Your task to perform on an android device: toggle location history Image 0: 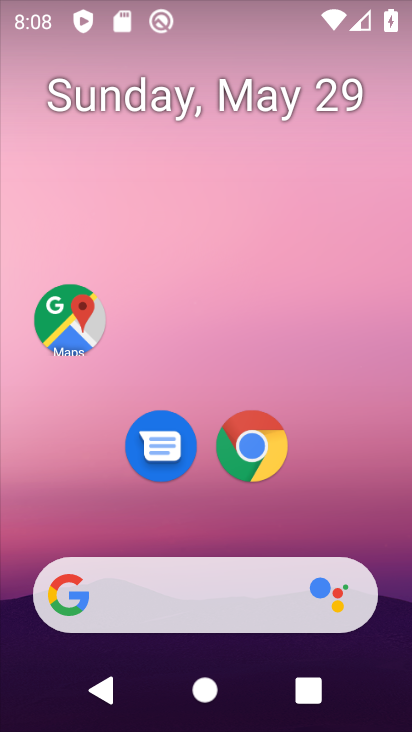
Step 0: click (333, 40)
Your task to perform on an android device: toggle location history Image 1: 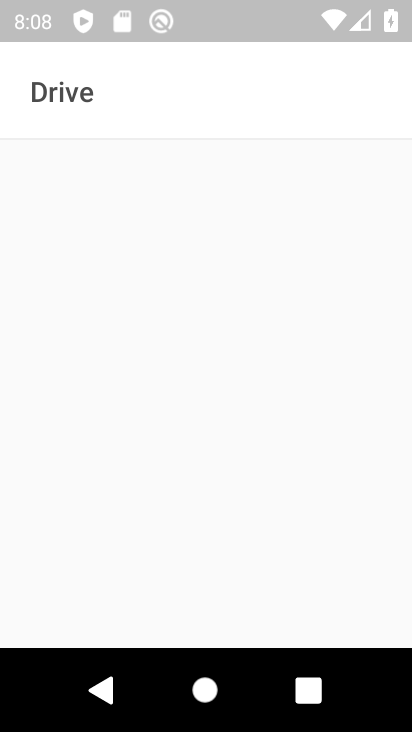
Step 1: press home button
Your task to perform on an android device: toggle location history Image 2: 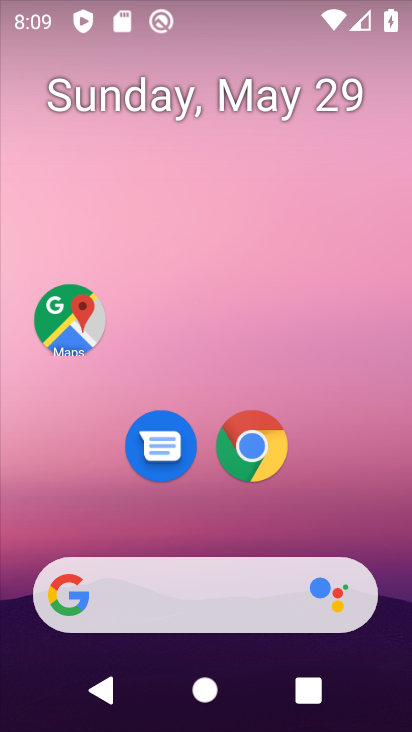
Step 2: drag from (212, 590) to (225, 119)
Your task to perform on an android device: toggle location history Image 3: 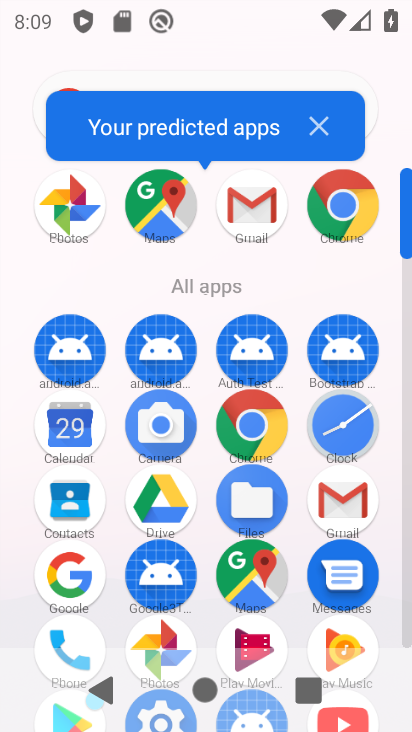
Step 3: drag from (213, 544) to (294, 172)
Your task to perform on an android device: toggle location history Image 4: 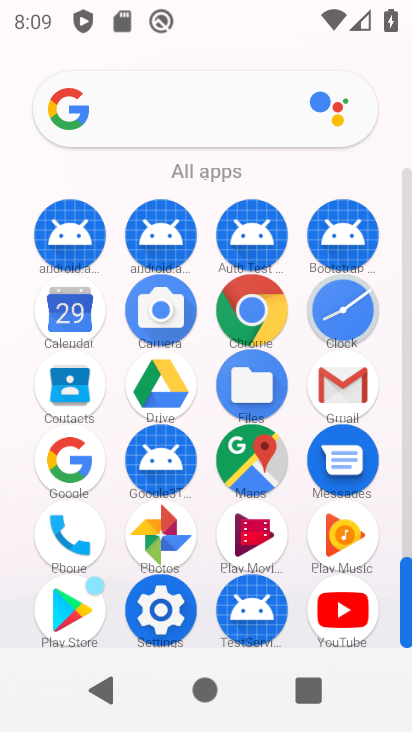
Step 4: click (155, 629)
Your task to perform on an android device: toggle location history Image 5: 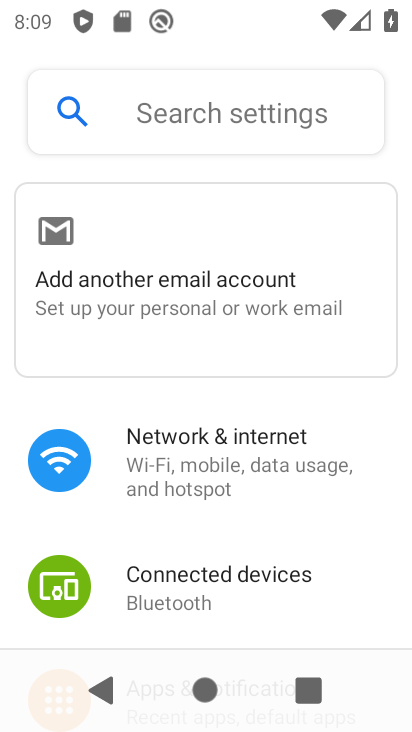
Step 5: drag from (185, 619) to (202, 315)
Your task to perform on an android device: toggle location history Image 6: 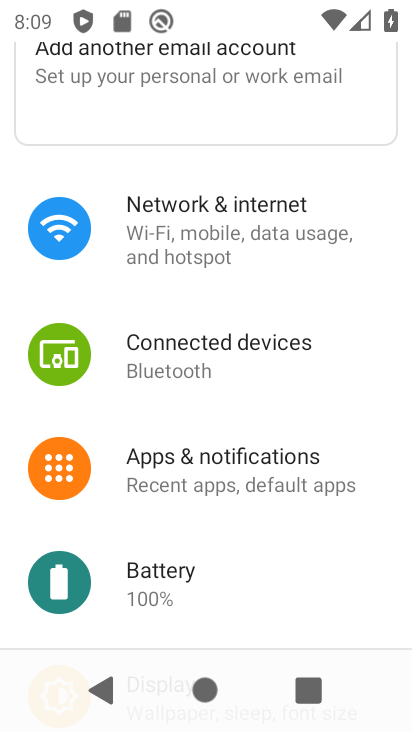
Step 6: drag from (200, 563) to (316, 125)
Your task to perform on an android device: toggle location history Image 7: 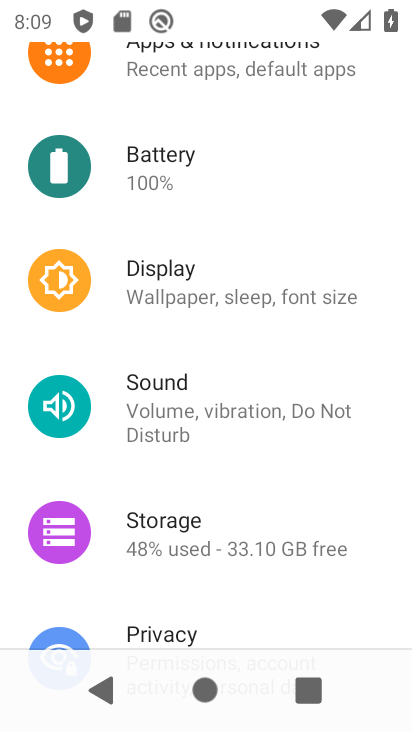
Step 7: drag from (154, 590) to (241, 177)
Your task to perform on an android device: toggle location history Image 8: 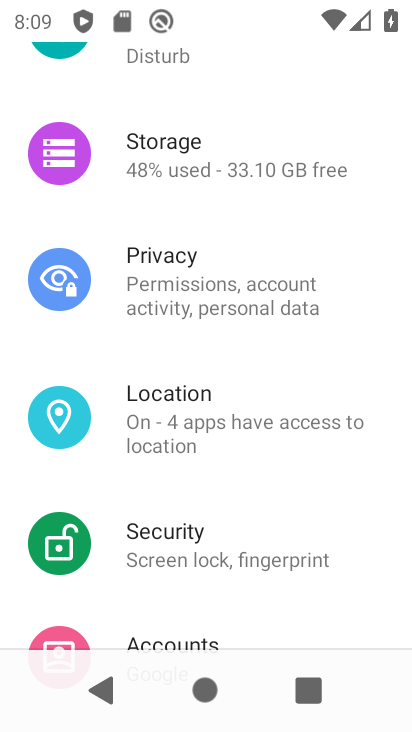
Step 8: click (150, 432)
Your task to perform on an android device: toggle location history Image 9: 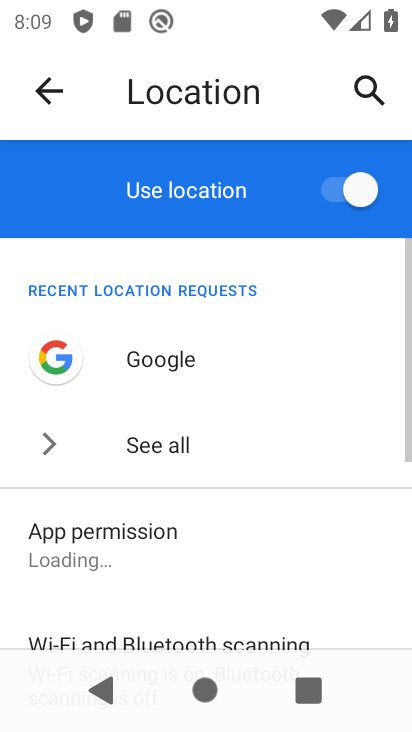
Step 9: drag from (229, 576) to (269, 214)
Your task to perform on an android device: toggle location history Image 10: 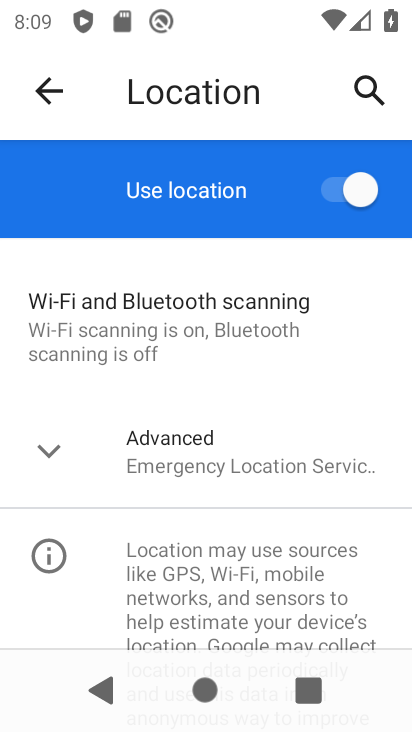
Step 10: click (192, 460)
Your task to perform on an android device: toggle location history Image 11: 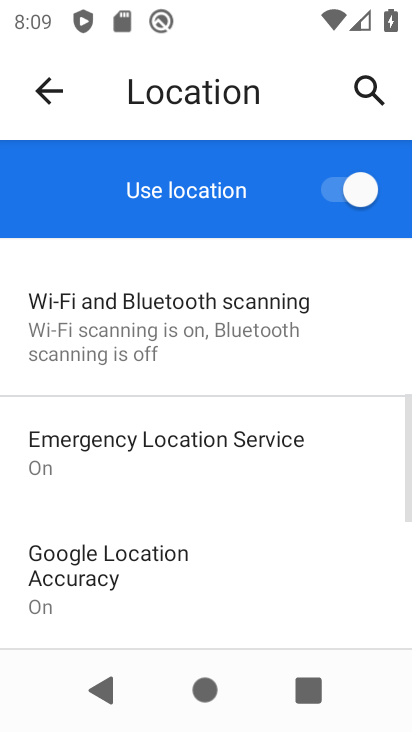
Step 11: drag from (258, 618) to (364, 254)
Your task to perform on an android device: toggle location history Image 12: 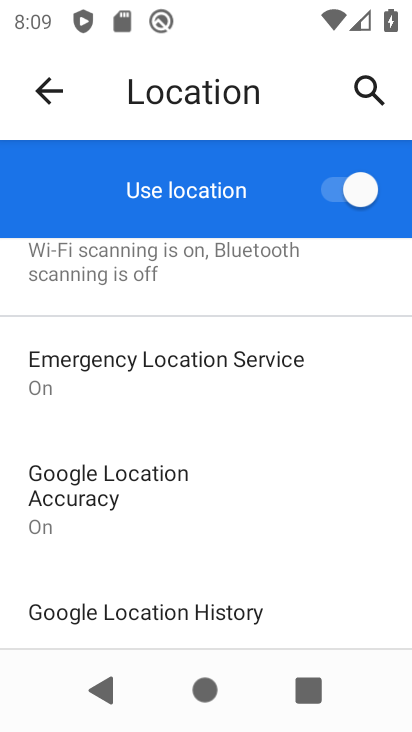
Step 12: click (235, 613)
Your task to perform on an android device: toggle location history Image 13: 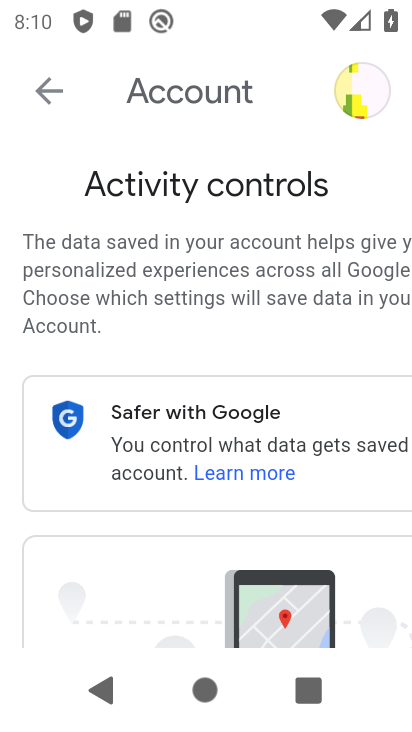
Step 13: drag from (367, 494) to (69, 153)
Your task to perform on an android device: toggle location history Image 14: 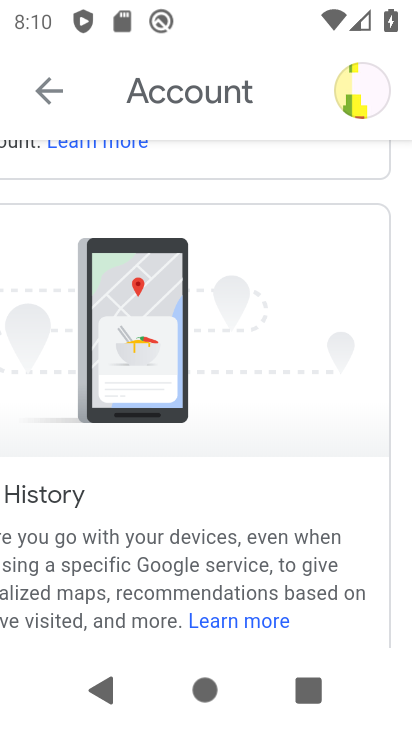
Step 14: drag from (296, 584) to (180, 219)
Your task to perform on an android device: toggle location history Image 15: 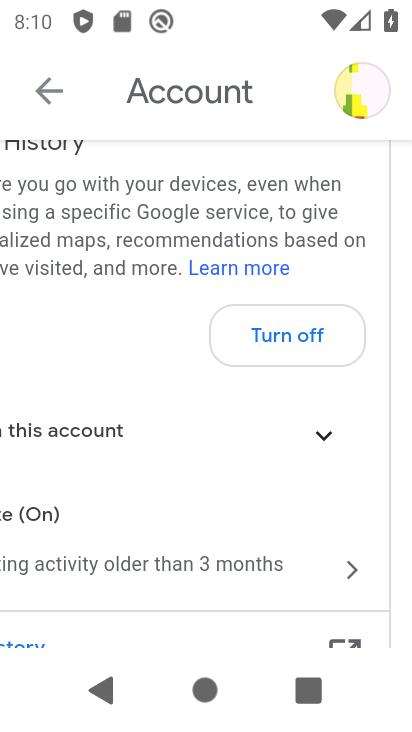
Step 15: click (282, 337)
Your task to perform on an android device: toggle location history Image 16: 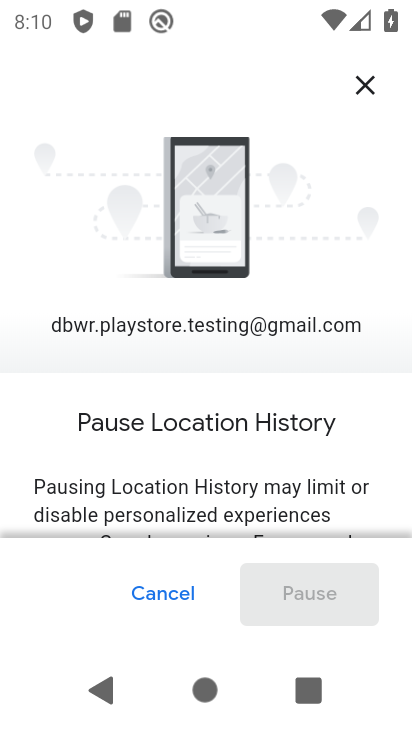
Step 16: drag from (288, 516) to (137, 72)
Your task to perform on an android device: toggle location history Image 17: 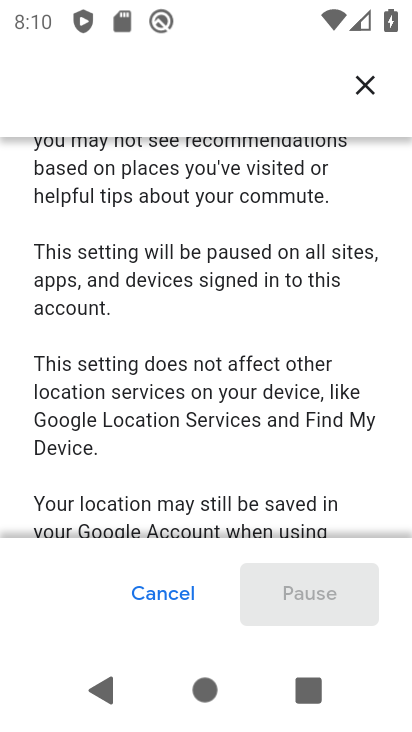
Step 17: drag from (227, 489) to (144, 113)
Your task to perform on an android device: toggle location history Image 18: 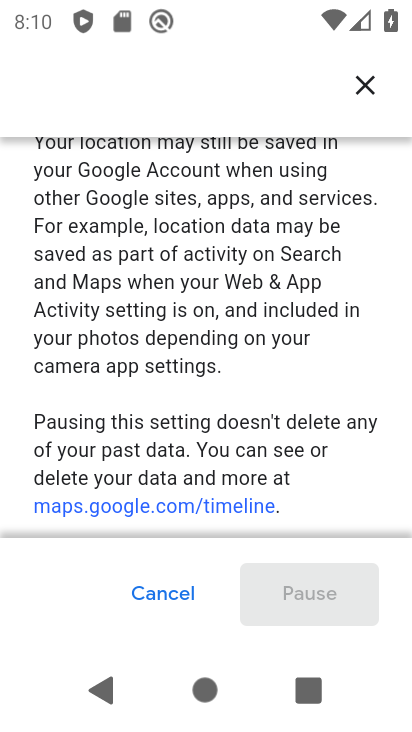
Step 18: drag from (325, 449) to (166, 74)
Your task to perform on an android device: toggle location history Image 19: 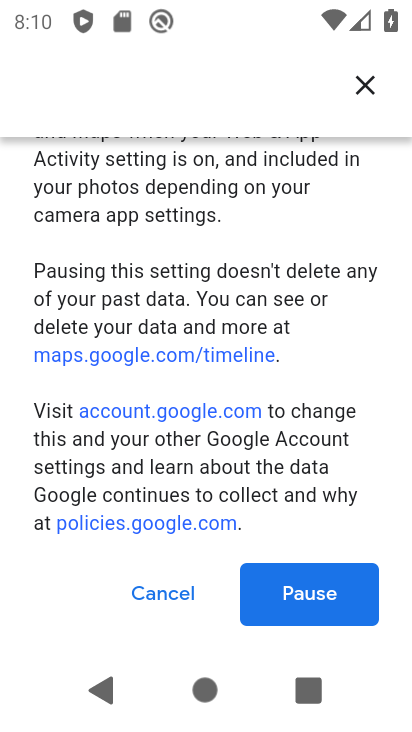
Step 19: click (283, 584)
Your task to perform on an android device: toggle location history Image 20: 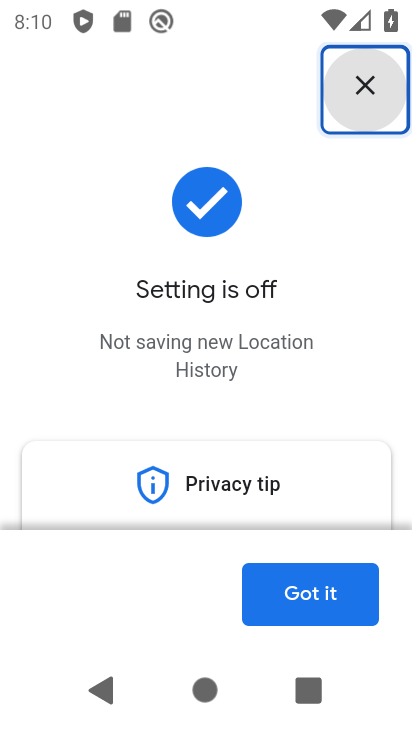
Step 20: click (308, 604)
Your task to perform on an android device: toggle location history Image 21: 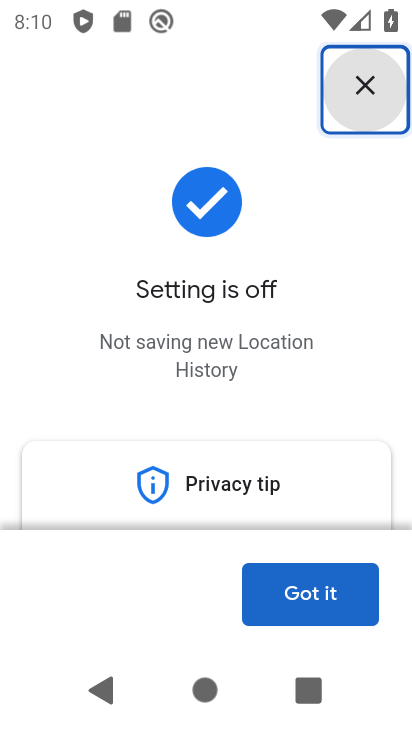
Step 21: task complete